Your task to perform on an android device: Set the phone to "Do not disturb". Image 0: 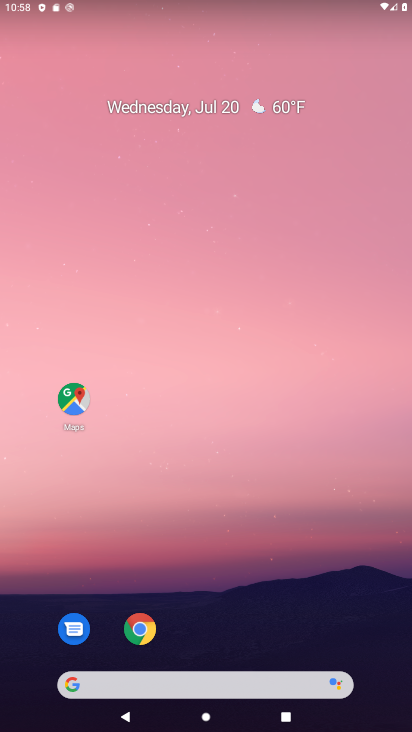
Step 0: drag from (237, 164) to (237, 118)
Your task to perform on an android device: Set the phone to "Do not disturb". Image 1: 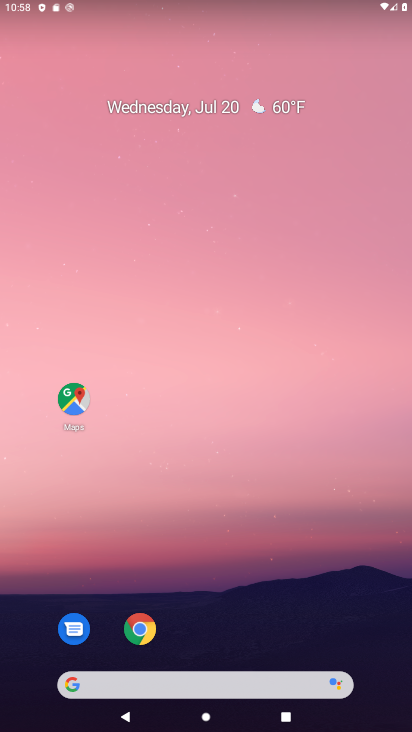
Step 1: drag from (230, 625) to (221, 108)
Your task to perform on an android device: Set the phone to "Do not disturb". Image 2: 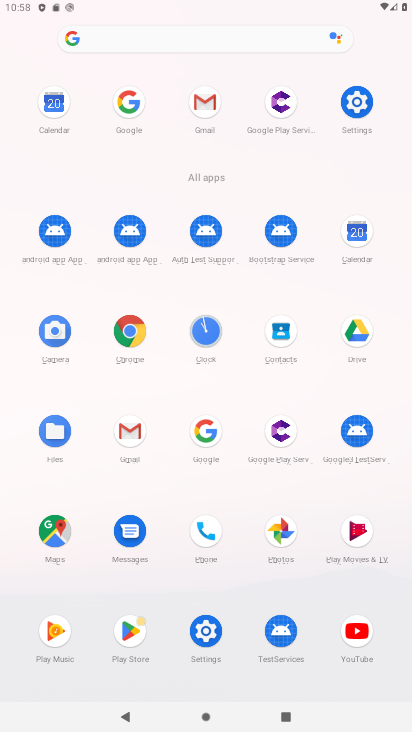
Step 2: click (354, 104)
Your task to perform on an android device: Set the phone to "Do not disturb". Image 3: 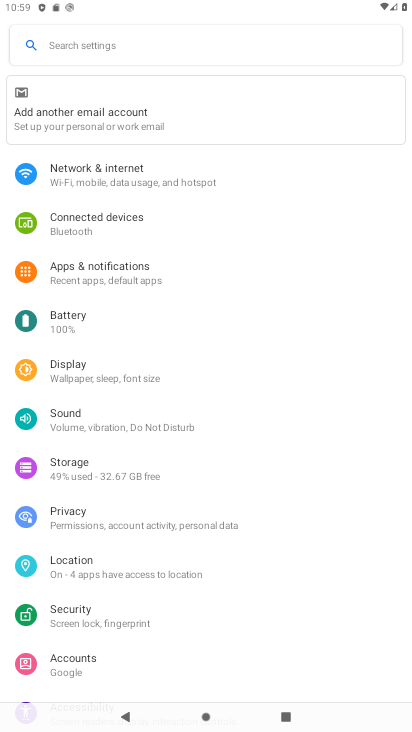
Step 3: click (135, 427)
Your task to perform on an android device: Set the phone to "Do not disturb". Image 4: 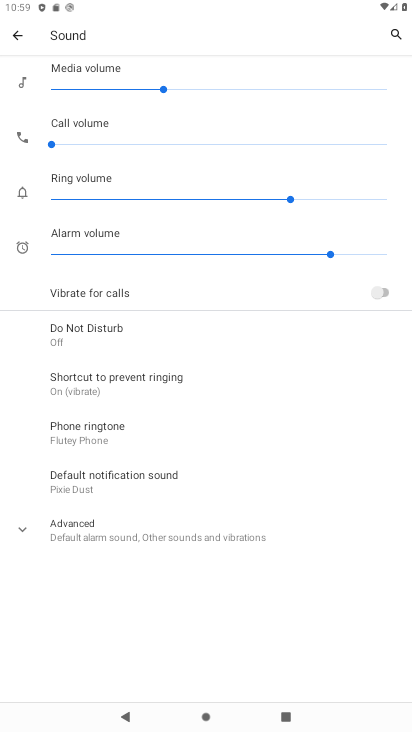
Step 4: click (164, 346)
Your task to perform on an android device: Set the phone to "Do not disturb". Image 5: 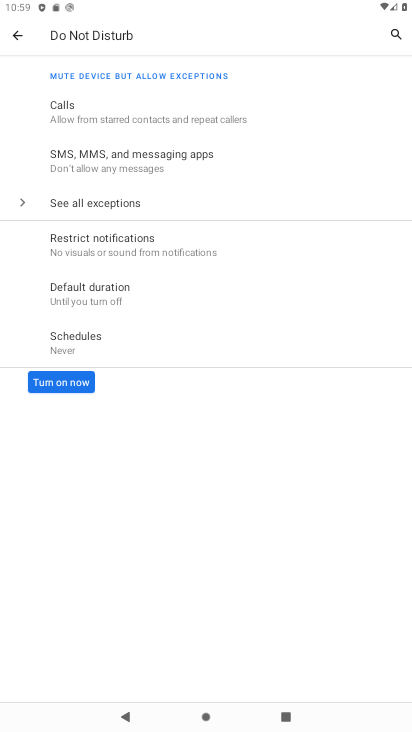
Step 5: click (56, 383)
Your task to perform on an android device: Set the phone to "Do not disturb". Image 6: 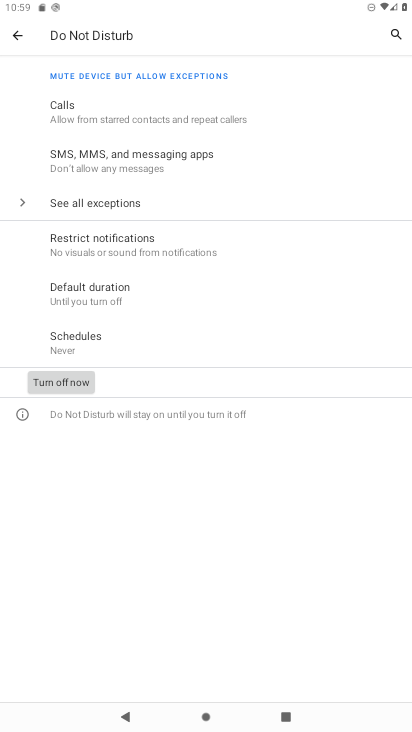
Step 6: task complete